Your task to perform on an android device: move a message to another label in the gmail app Image 0: 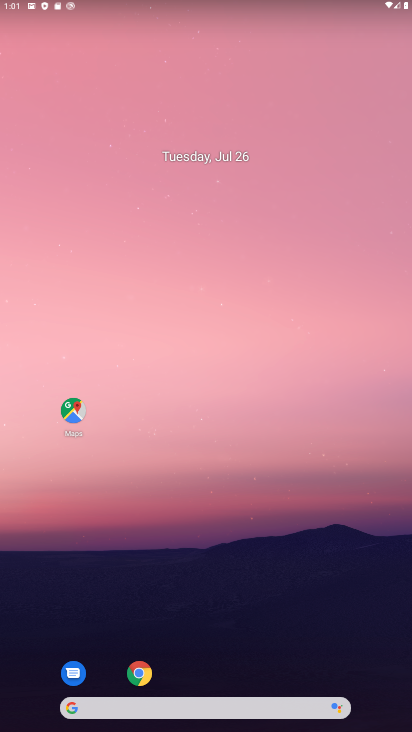
Step 0: drag from (326, 604) to (324, 234)
Your task to perform on an android device: move a message to another label in the gmail app Image 1: 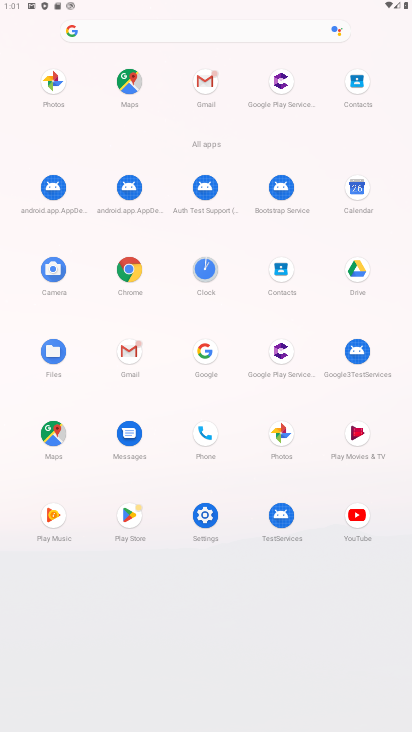
Step 1: click (136, 351)
Your task to perform on an android device: move a message to another label in the gmail app Image 2: 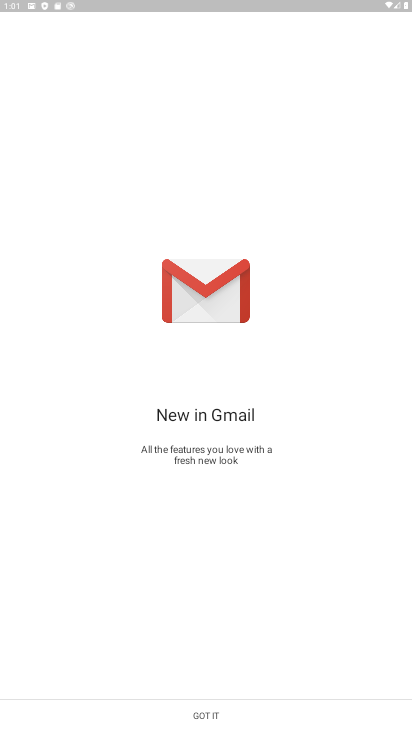
Step 2: click (252, 717)
Your task to perform on an android device: move a message to another label in the gmail app Image 3: 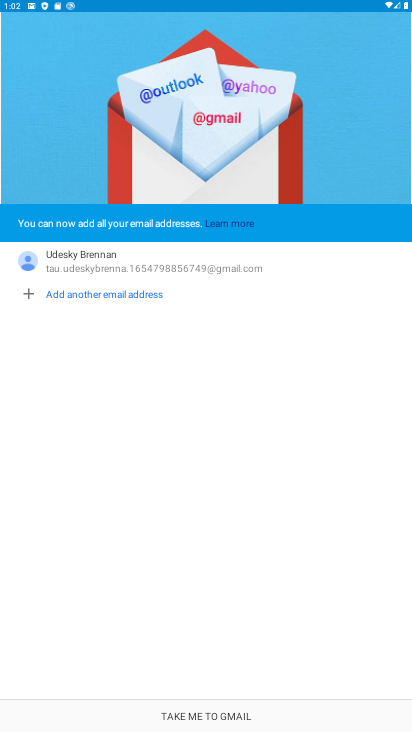
Step 3: click (252, 717)
Your task to perform on an android device: move a message to another label in the gmail app Image 4: 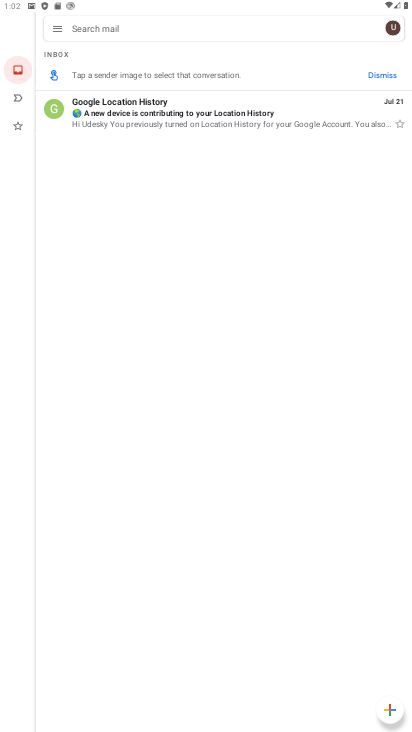
Step 4: click (52, 29)
Your task to perform on an android device: move a message to another label in the gmail app Image 5: 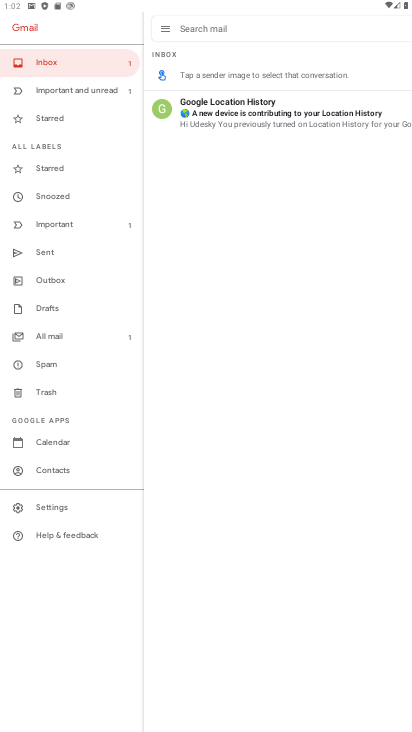
Step 5: click (39, 334)
Your task to perform on an android device: move a message to another label in the gmail app Image 6: 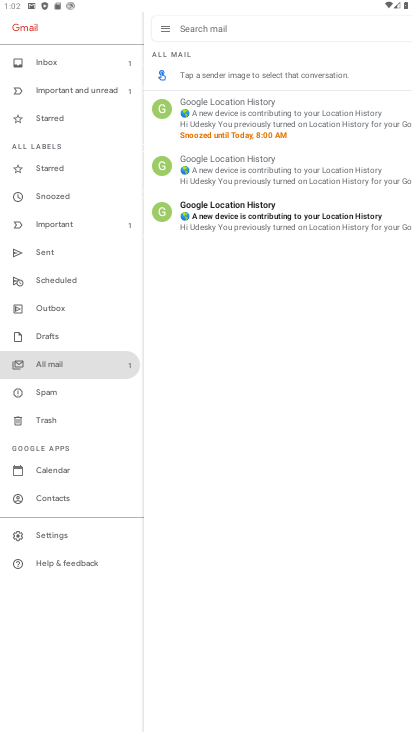
Step 6: click (164, 26)
Your task to perform on an android device: move a message to another label in the gmail app Image 7: 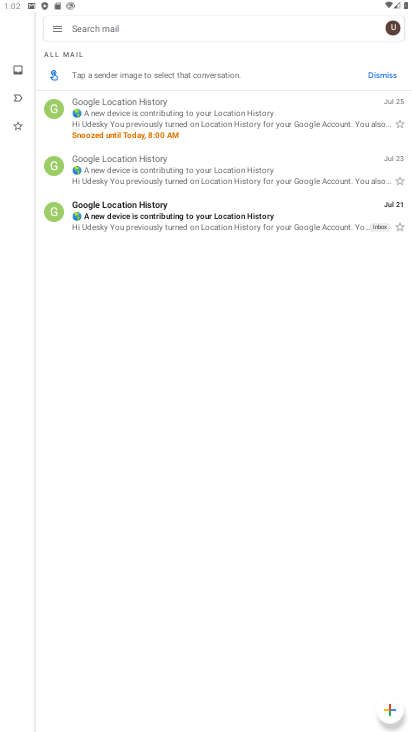
Step 7: click (186, 124)
Your task to perform on an android device: move a message to another label in the gmail app Image 8: 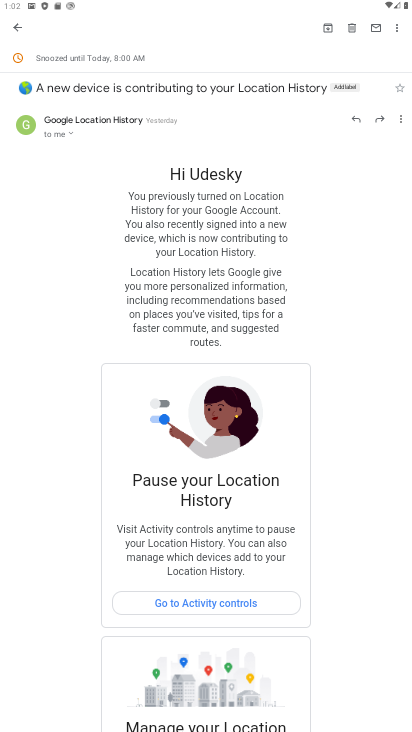
Step 8: click (339, 83)
Your task to perform on an android device: move a message to another label in the gmail app Image 9: 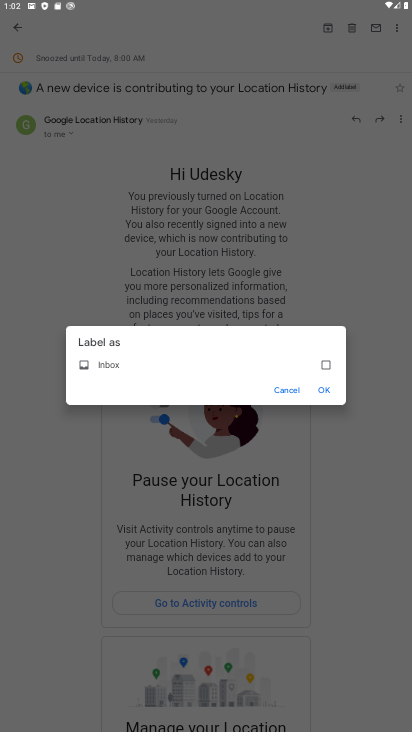
Step 9: click (241, 356)
Your task to perform on an android device: move a message to another label in the gmail app Image 10: 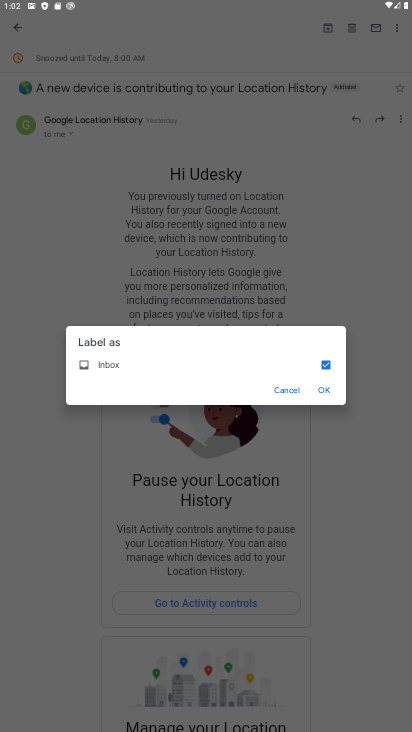
Step 10: click (326, 392)
Your task to perform on an android device: move a message to another label in the gmail app Image 11: 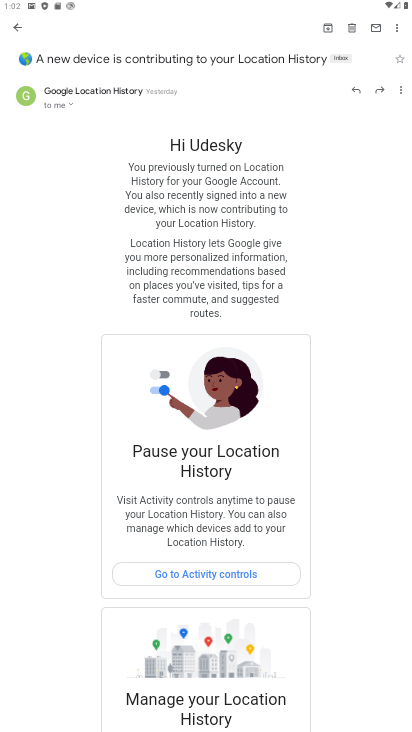
Step 11: task complete